Your task to perform on an android device: Open Google Chrome and open the bookmarks view Image 0: 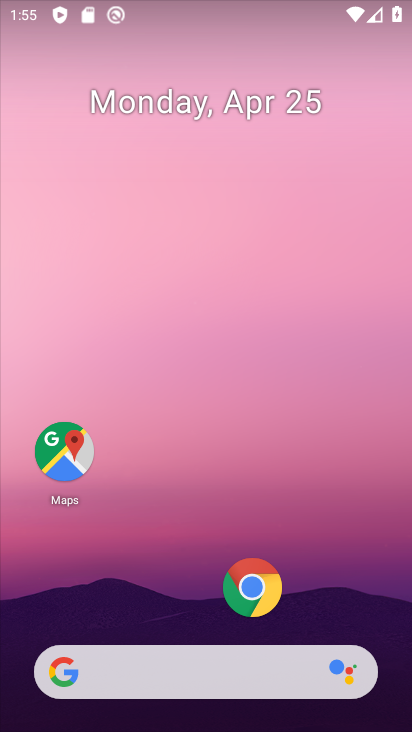
Step 0: press home button
Your task to perform on an android device: Open Google Chrome and open the bookmarks view Image 1: 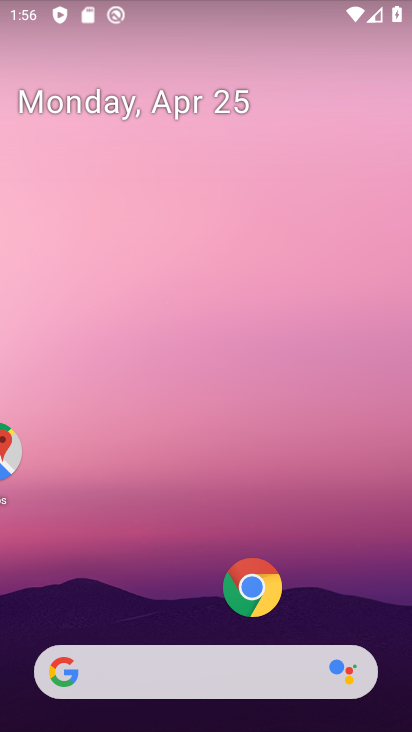
Step 1: click (254, 581)
Your task to perform on an android device: Open Google Chrome and open the bookmarks view Image 2: 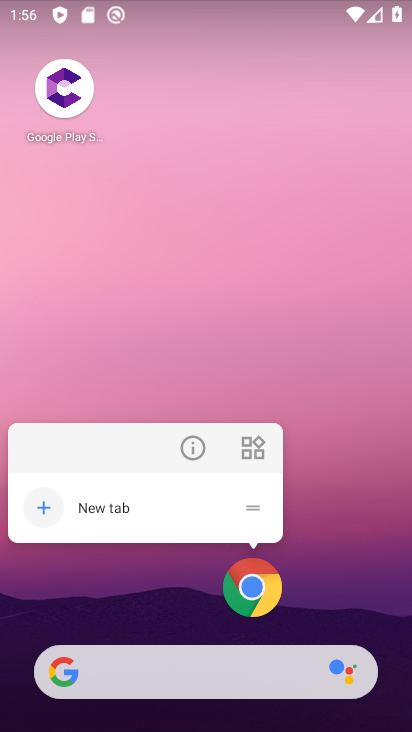
Step 2: click (254, 581)
Your task to perform on an android device: Open Google Chrome and open the bookmarks view Image 3: 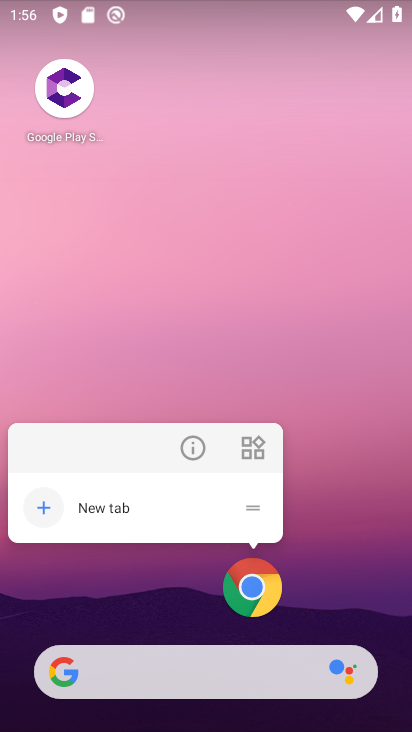
Step 3: drag from (325, 606) to (371, 119)
Your task to perform on an android device: Open Google Chrome and open the bookmarks view Image 4: 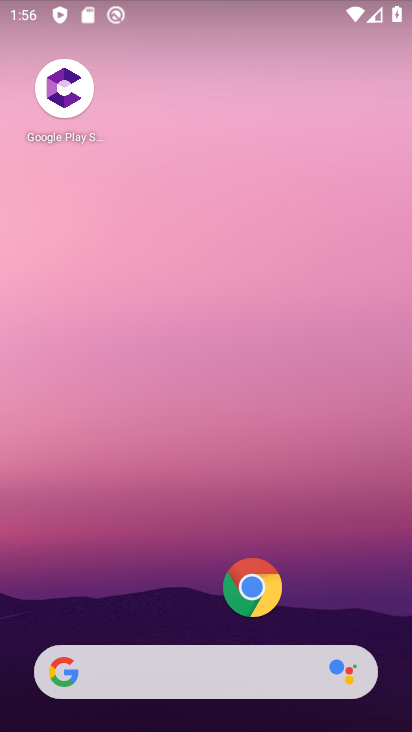
Step 4: drag from (324, 604) to (345, 89)
Your task to perform on an android device: Open Google Chrome and open the bookmarks view Image 5: 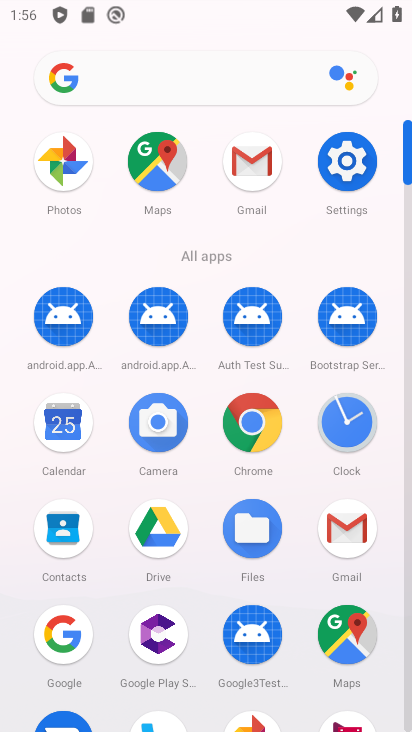
Step 5: click (244, 426)
Your task to perform on an android device: Open Google Chrome and open the bookmarks view Image 6: 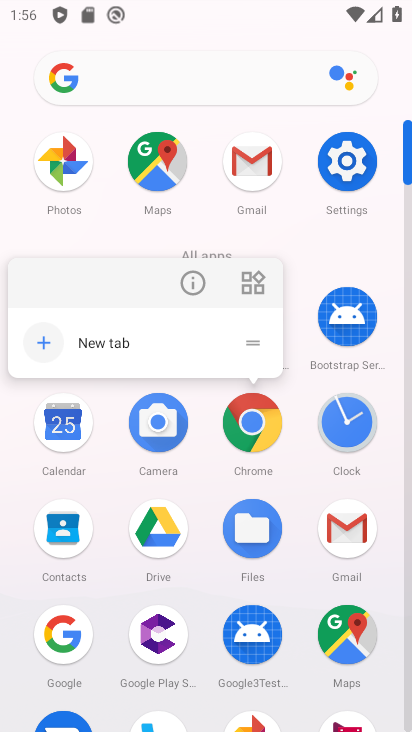
Step 6: click (257, 422)
Your task to perform on an android device: Open Google Chrome and open the bookmarks view Image 7: 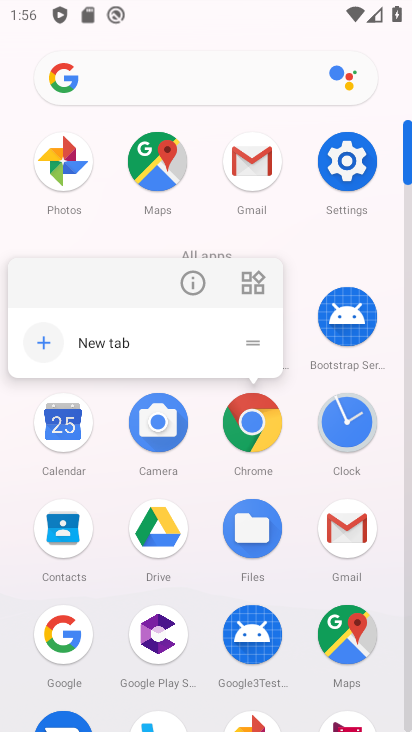
Step 7: click (212, 465)
Your task to perform on an android device: Open Google Chrome and open the bookmarks view Image 8: 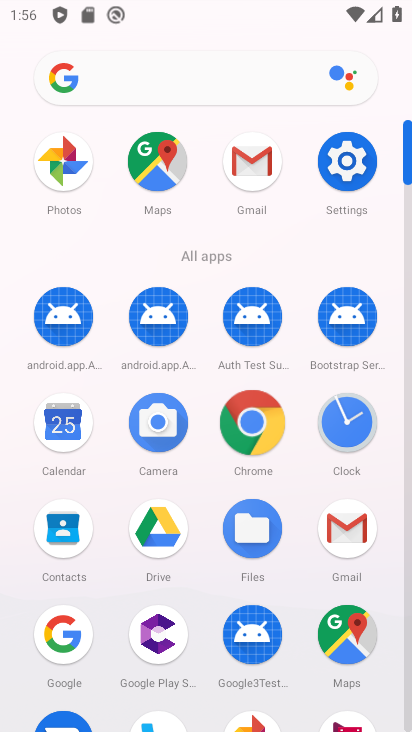
Step 8: click (250, 414)
Your task to perform on an android device: Open Google Chrome and open the bookmarks view Image 9: 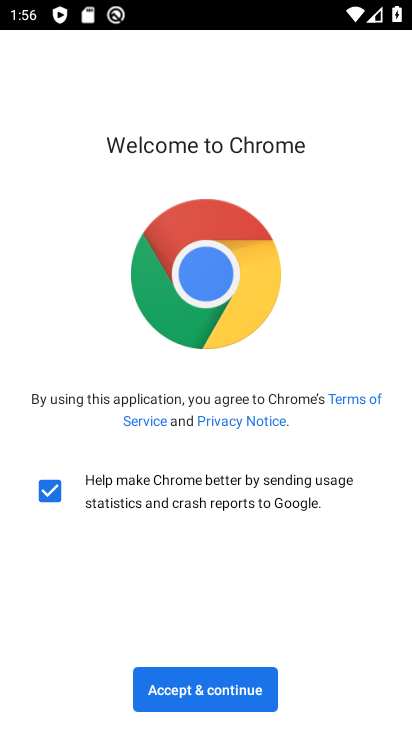
Step 9: click (194, 679)
Your task to perform on an android device: Open Google Chrome and open the bookmarks view Image 10: 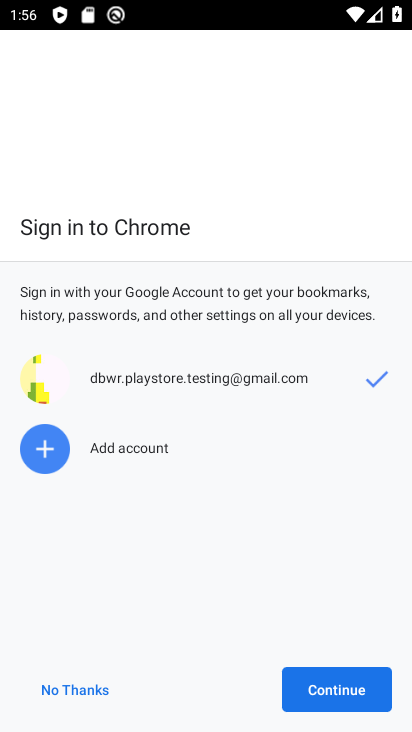
Step 10: click (304, 682)
Your task to perform on an android device: Open Google Chrome and open the bookmarks view Image 11: 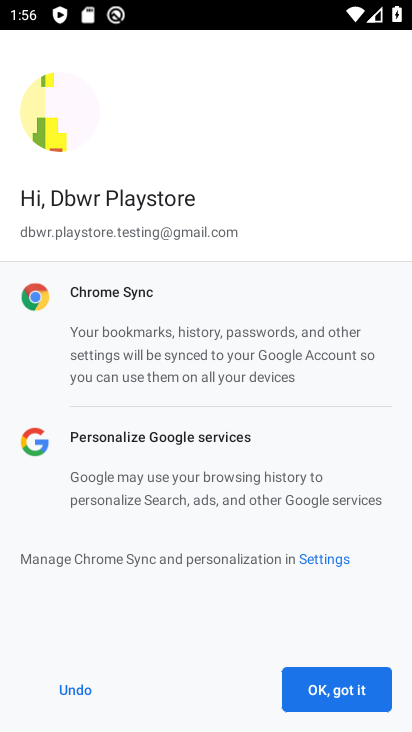
Step 11: click (321, 689)
Your task to perform on an android device: Open Google Chrome and open the bookmarks view Image 12: 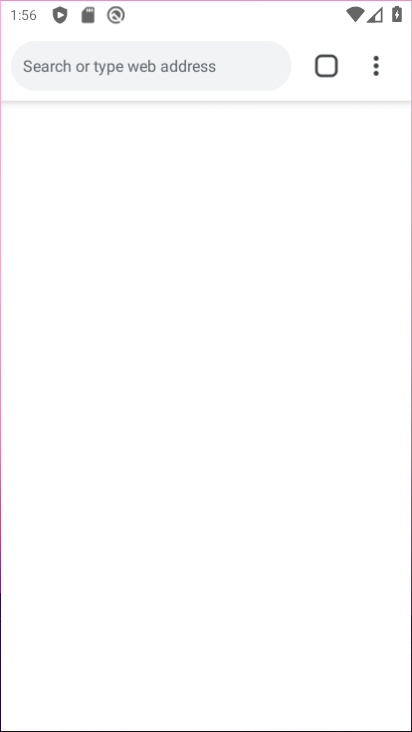
Step 12: click (321, 689)
Your task to perform on an android device: Open Google Chrome and open the bookmarks view Image 13: 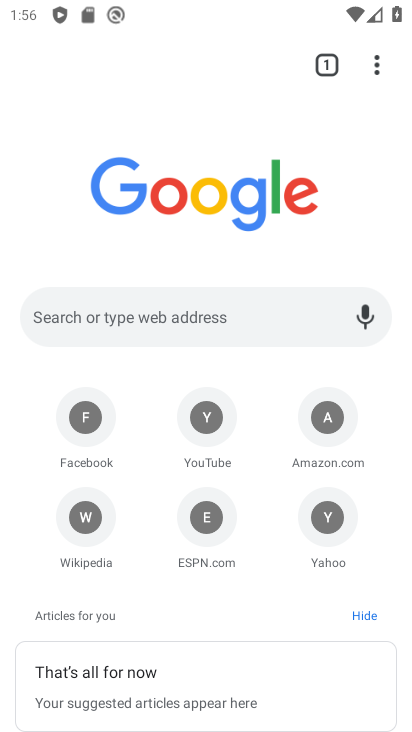
Step 13: click (378, 68)
Your task to perform on an android device: Open Google Chrome and open the bookmarks view Image 14: 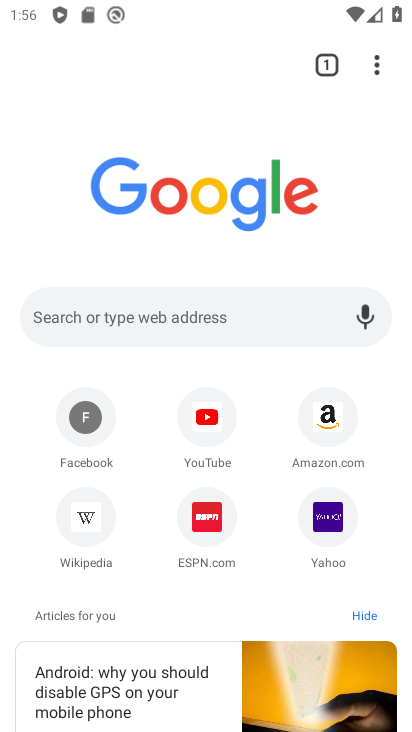
Step 14: click (366, 54)
Your task to perform on an android device: Open Google Chrome and open the bookmarks view Image 15: 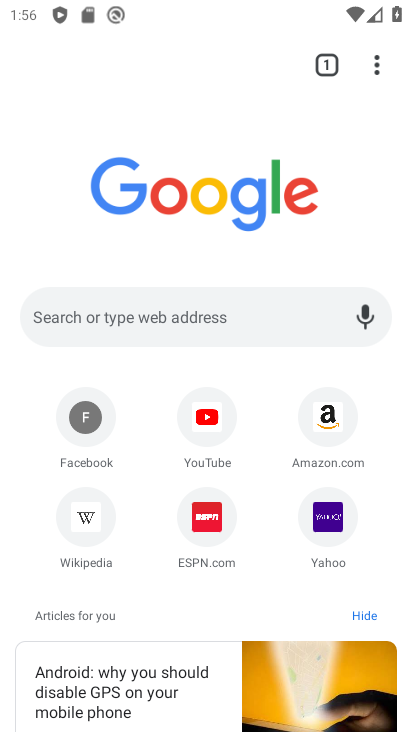
Step 15: click (379, 60)
Your task to perform on an android device: Open Google Chrome and open the bookmarks view Image 16: 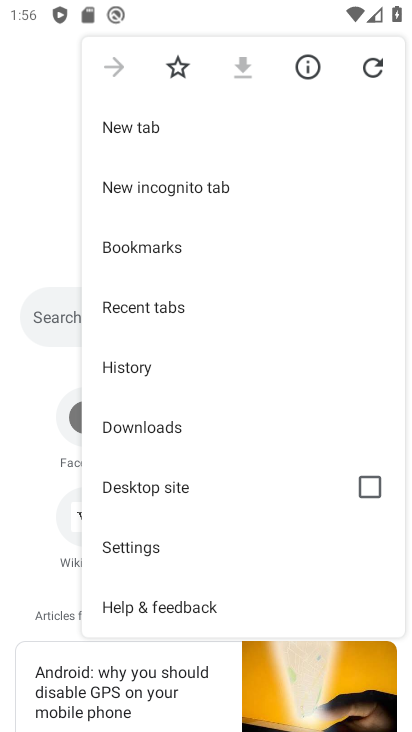
Step 16: click (174, 245)
Your task to perform on an android device: Open Google Chrome and open the bookmarks view Image 17: 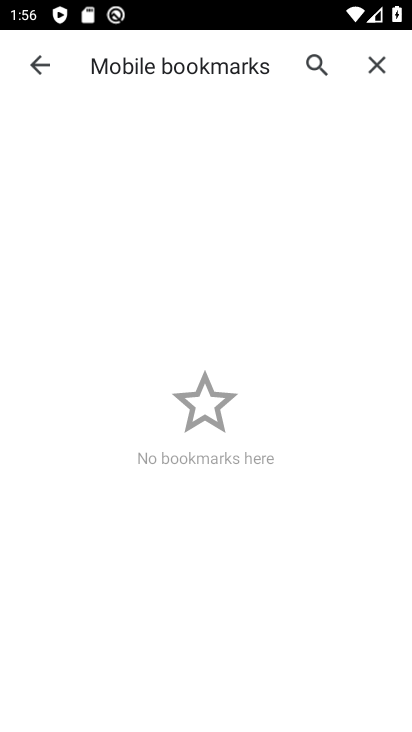
Step 17: task complete